Your task to perform on an android device: turn on wifi Image 0: 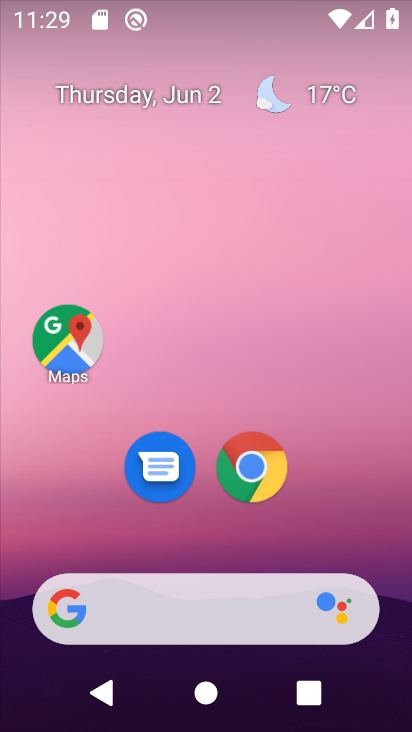
Step 0: drag from (199, 502) to (251, 199)
Your task to perform on an android device: turn on wifi Image 1: 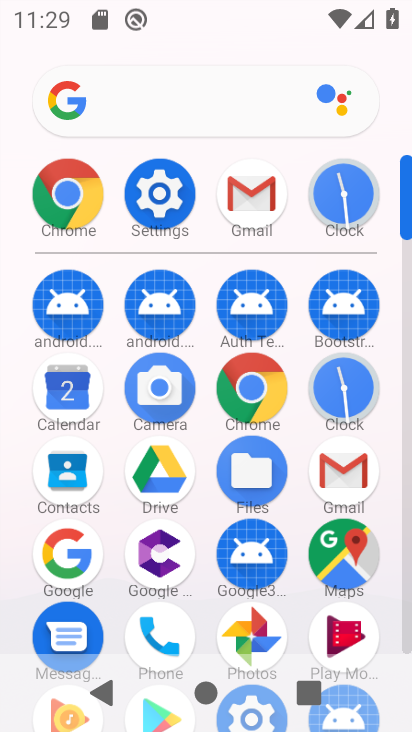
Step 1: click (148, 181)
Your task to perform on an android device: turn on wifi Image 2: 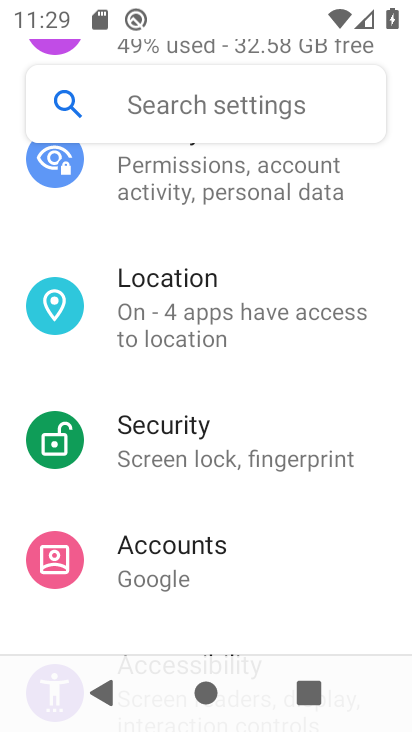
Step 2: drag from (232, 197) to (232, 572)
Your task to perform on an android device: turn on wifi Image 3: 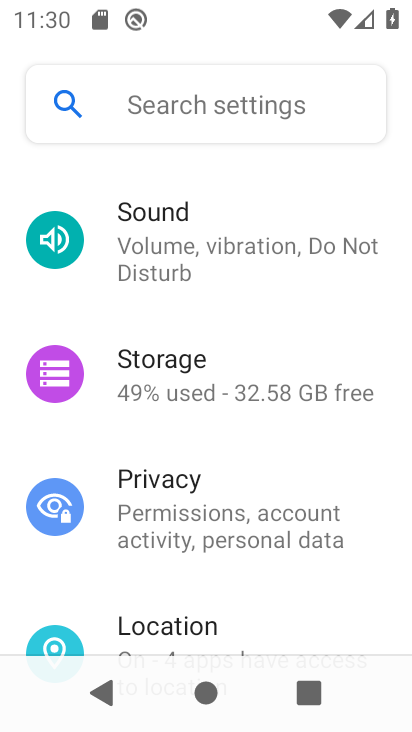
Step 3: drag from (221, 254) to (218, 601)
Your task to perform on an android device: turn on wifi Image 4: 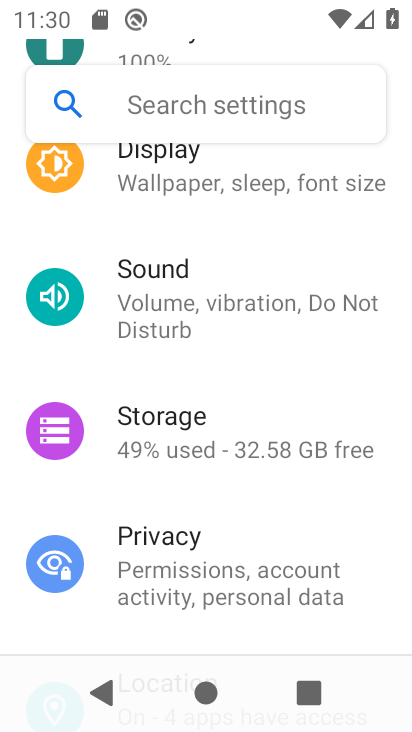
Step 4: drag from (268, 160) to (240, 556)
Your task to perform on an android device: turn on wifi Image 5: 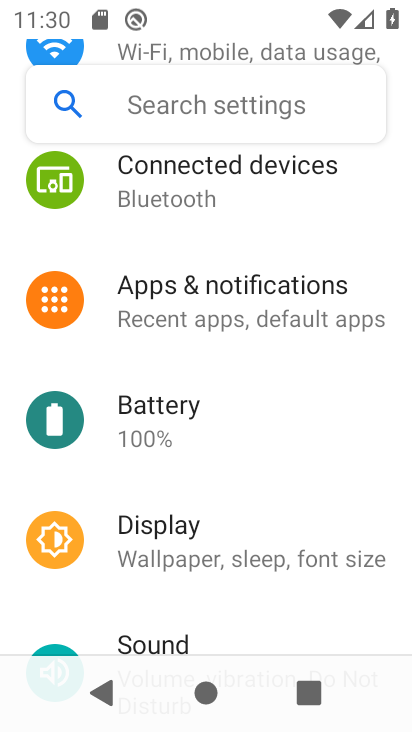
Step 5: drag from (193, 156) to (200, 591)
Your task to perform on an android device: turn on wifi Image 6: 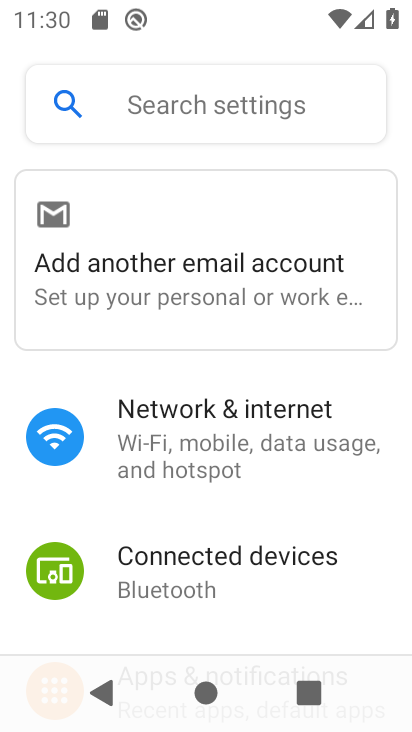
Step 6: click (152, 436)
Your task to perform on an android device: turn on wifi Image 7: 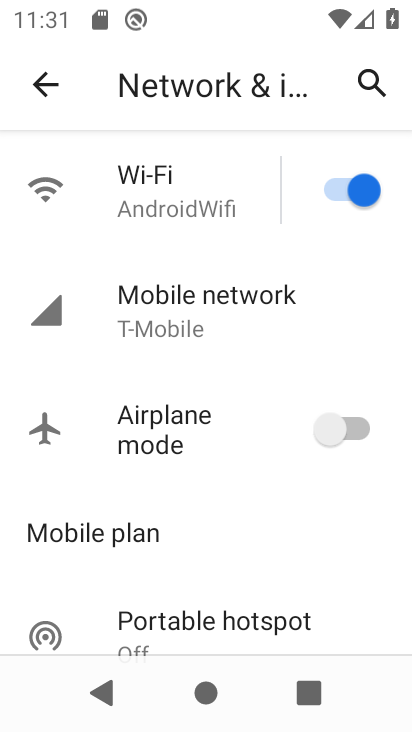
Step 7: task complete